Your task to perform on an android device: Go to battery settings Image 0: 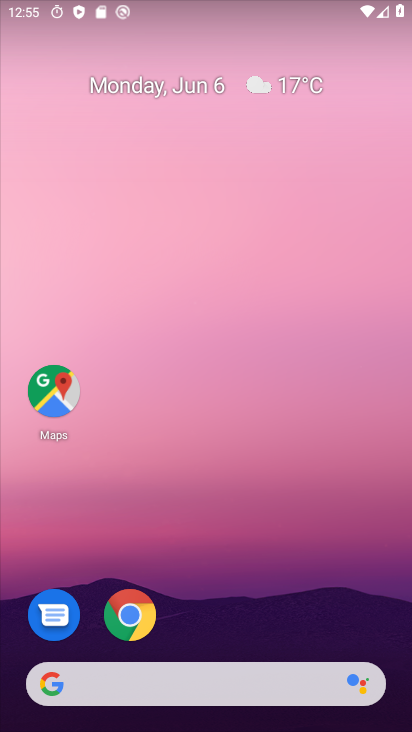
Step 0: drag from (195, 634) to (273, 122)
Your task to perform on an android device: Go to battery settings Image 1: 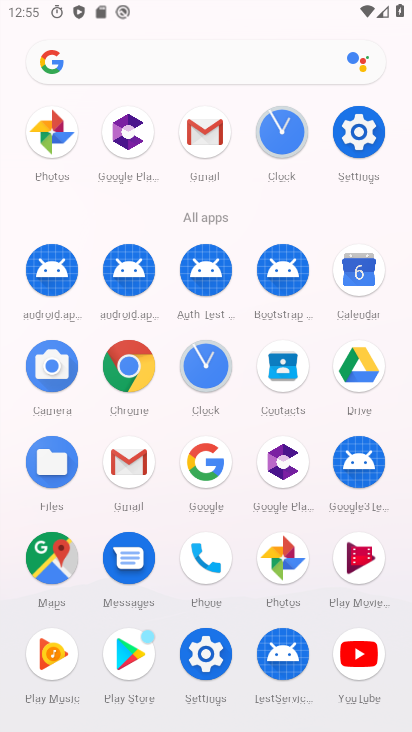
Step 1: click (360, 124)
Your task to perform on an android device: Go to battery settings Image 2: 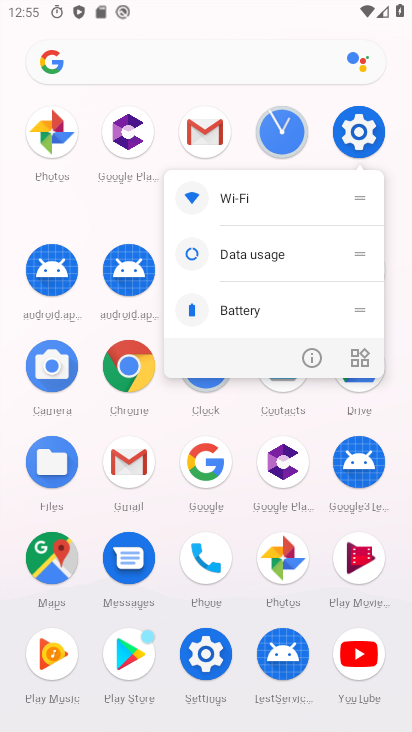
Step 2: click (239, 306)
Your task to perform on an android device: Go to battery settings Image 3: 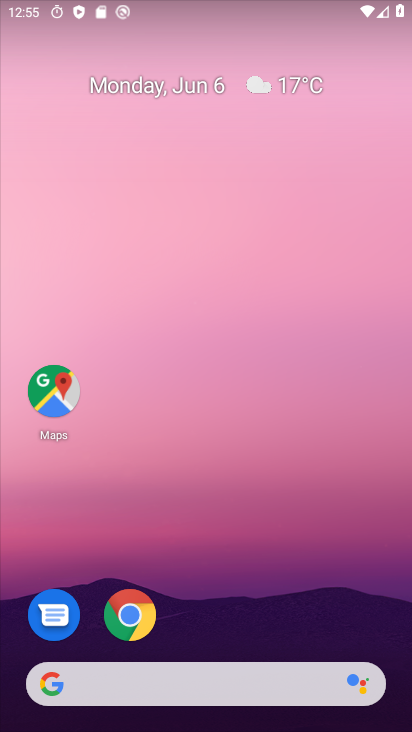
Step 3: drag from (199, 618) to (252, 156)
Your task to perform on an android device: Go to battery settings Image 4: 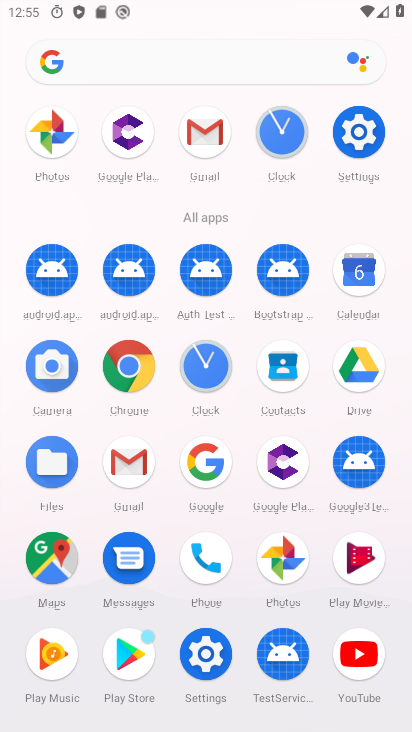
Step 4: click (362, 122)
Your task to perform on an android device: Go to battery settings Image 5: 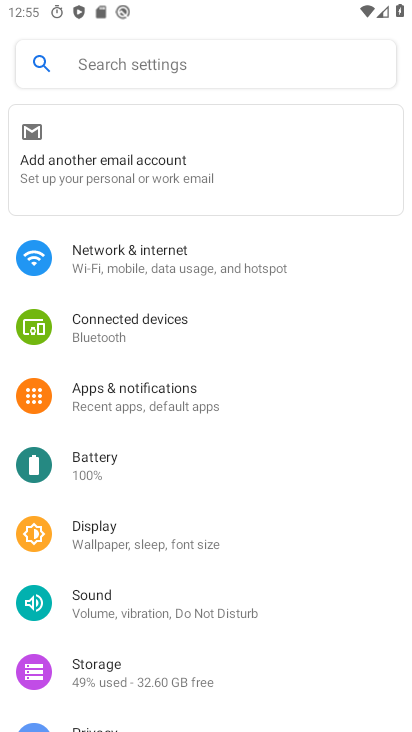
Step 5: click (169, 463)
Your task to perform on an android device: Go to battery settings Image 6: 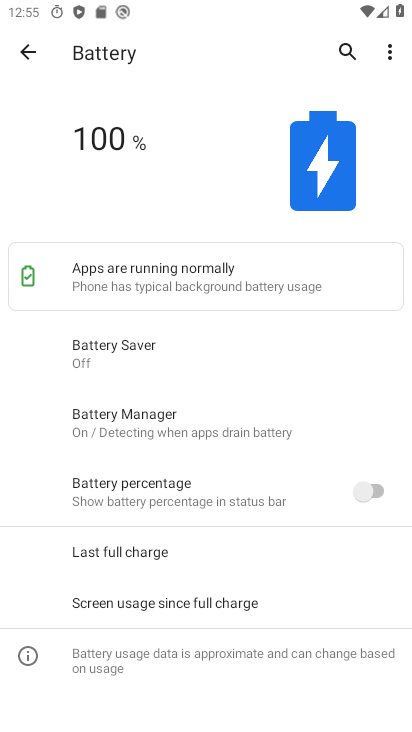
Step 6: task complete